Your task to perform on an android device: stop showing notifications on the lock screen Image 0: 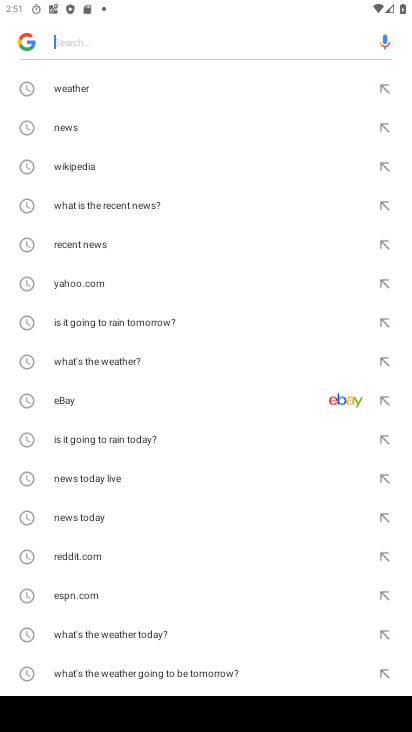
Step 0: press back button
Your task to perform on an android device: stop showing notifications on the lock screen Image 1: 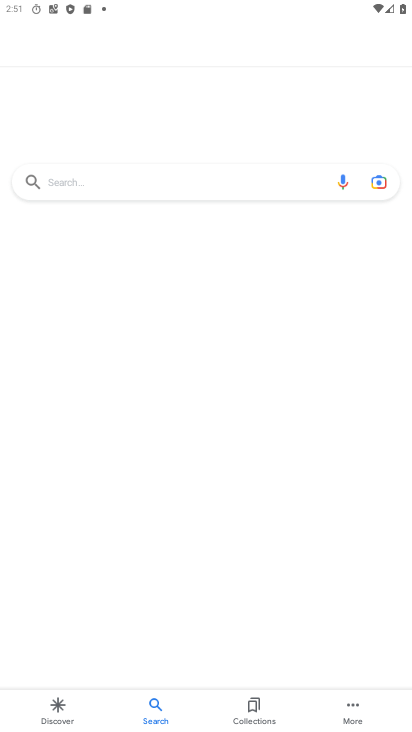
Step 1: press back button
Your task to perform on an android device: stop showing notifications on the lock screen Image 2: 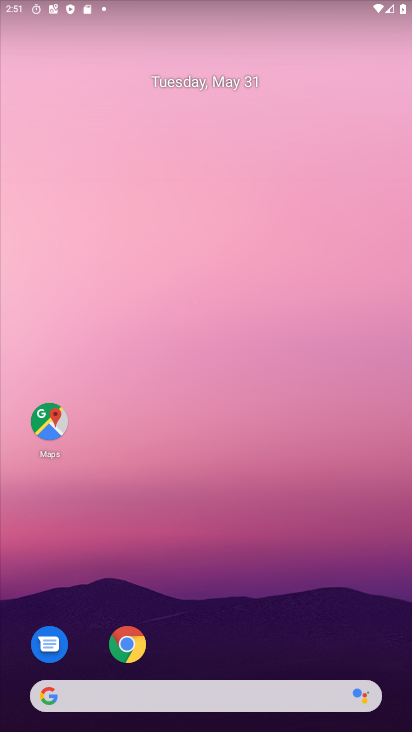
Step 2: drag from (395, 697) to (312, 83)
Your task to perform on an android device: stop showing notifications on the lock screen Image 3: 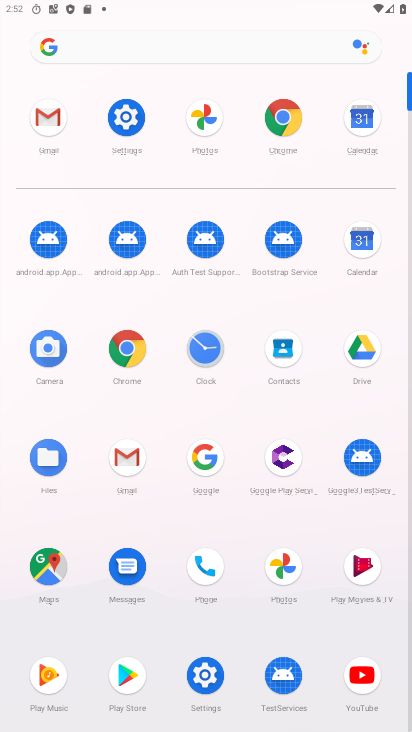
Step 3: click (133, 122)
Your task to perform on an android device: stop showing notifications on the lock screen Image 4: 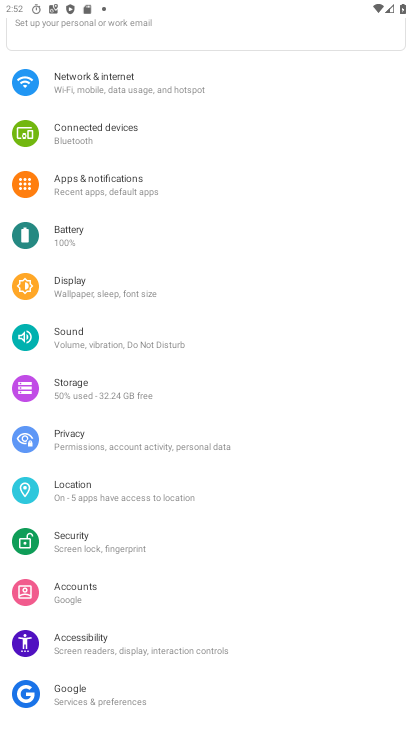
Step 4: click (83, 76)
Your task to perform on an android device: stop showing notifications on the lock screen Image 5: 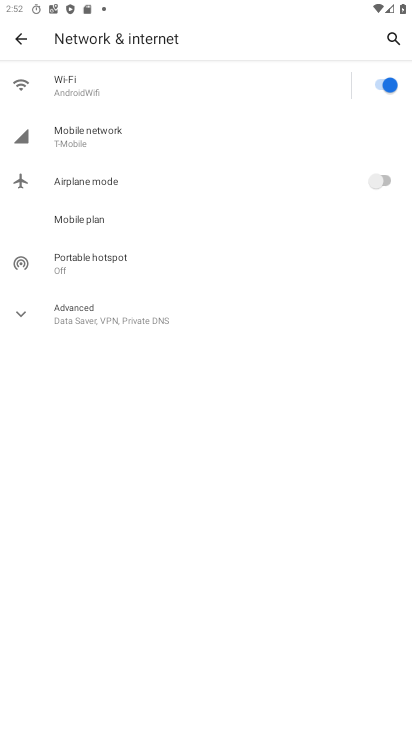
Step 5: click (21, 36)
Your task to perform on an android device: stop showing notifications on the lock screen Image 6: 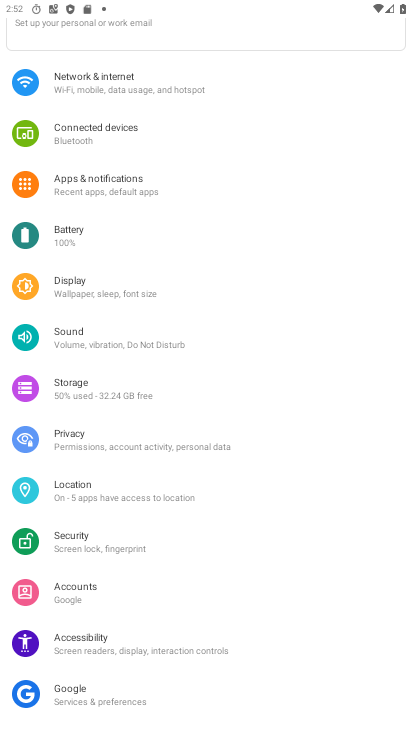
Step 6: click (102, 178)
Your task to perform on an android device: stop showing notifications on the lock screen Image 7: 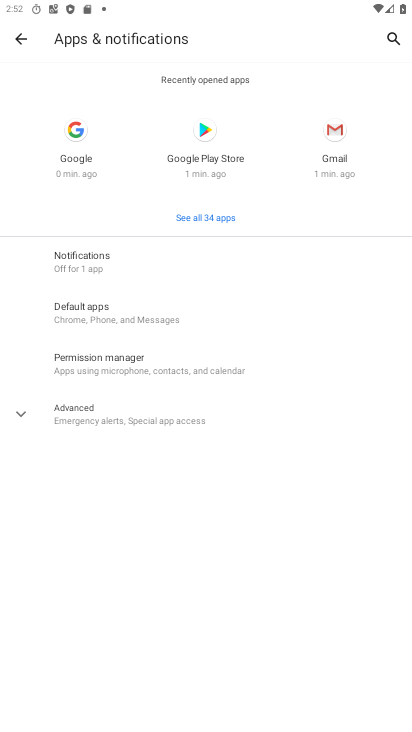
Step 7: click (59, 258)
Your task to perform on an android device: stop showing notifications on the lock screen Image 8: 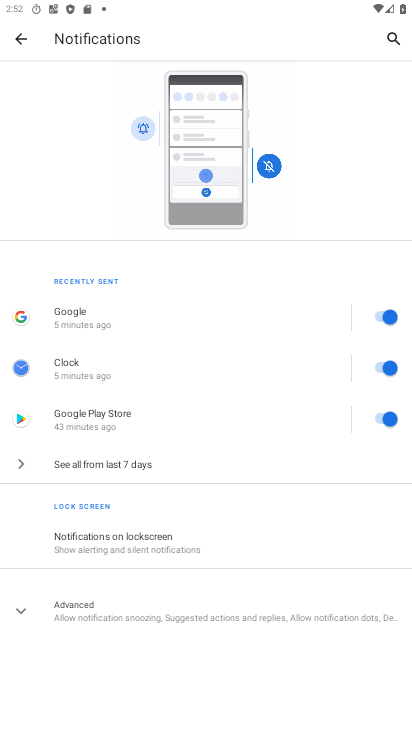
Step 8: click (105, 531)
Your task to perform on an android device: stop showing notifications on the lock screen Image 9: 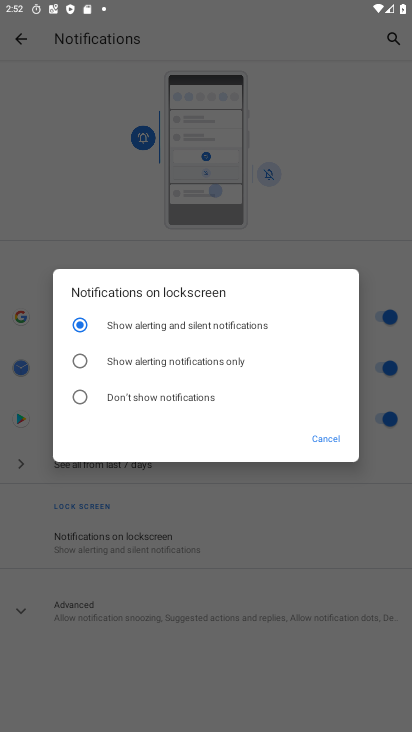
Step 9: click (76, 395)
Your task to perform on an android device: stop showing notifications on the lock screen Image 10: 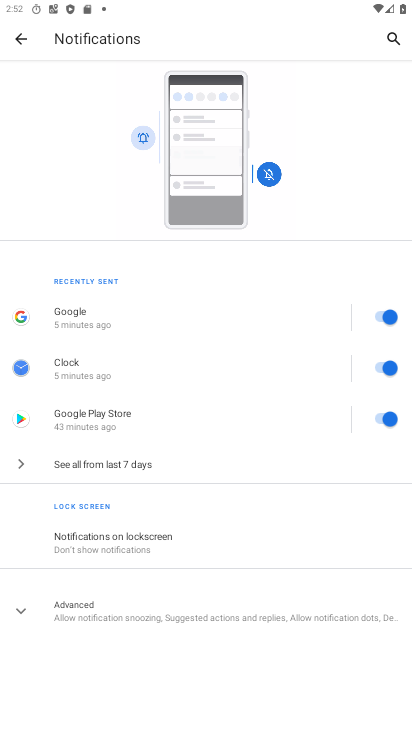
Step 10: task complete